Your task to perform on an android device: Search for sushi restaurants on Maps Image 0: 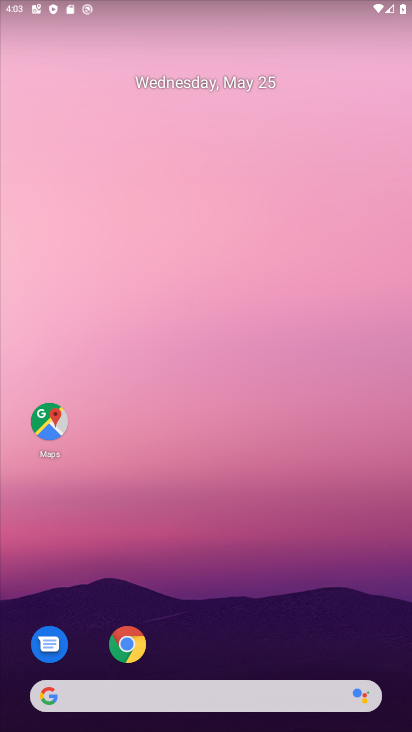
Step 0: click (45, 427)
Your task to perform on an android device: Search for sushi restaurants on Maps Image 1: 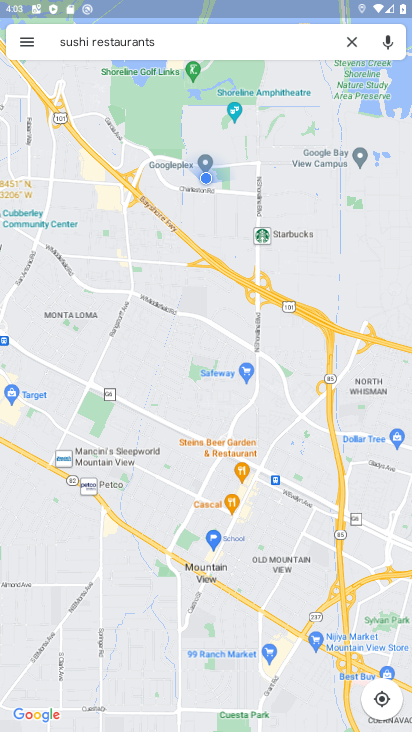
Step 1: click (177, 40)
Your task to perform on an android device: Search for sushi restaurants on Maps Image 2: 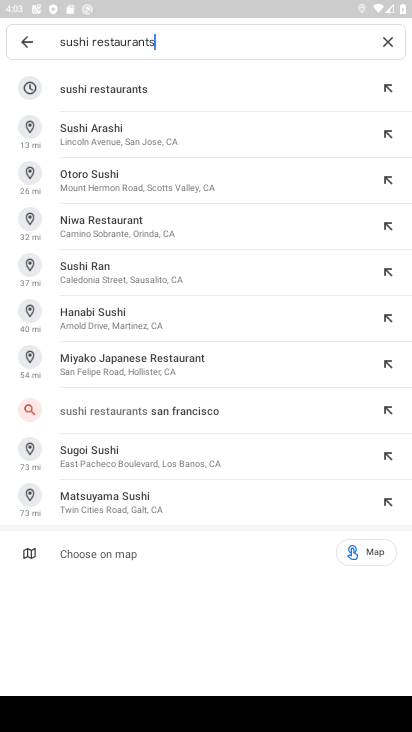
Step 2: click (150, 80)
Your task to perform on an android device: Search for sushi restaurants on Maps Image 3: 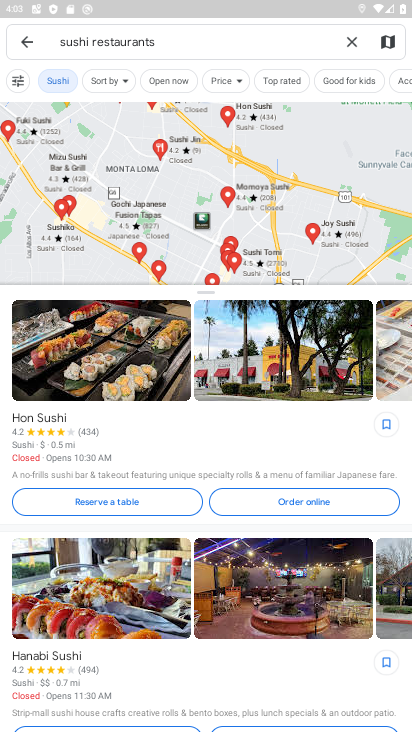
Step 3: task complete